Your task to perform on an android device: open device folders in google photos Image 0: 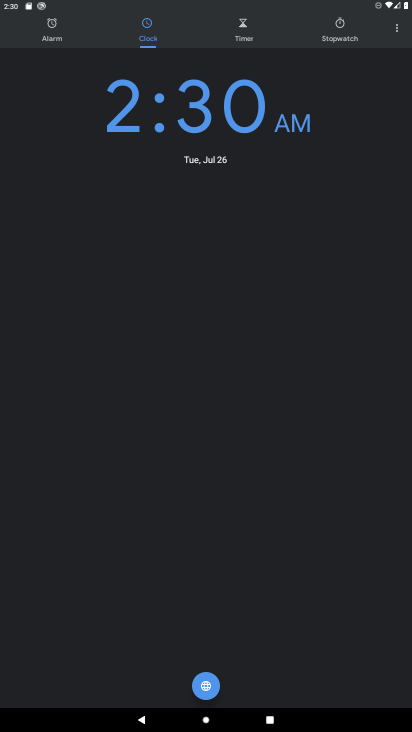
Step 0: press home button
Your task to perform on an android device: open device folders in google photos Image 1: 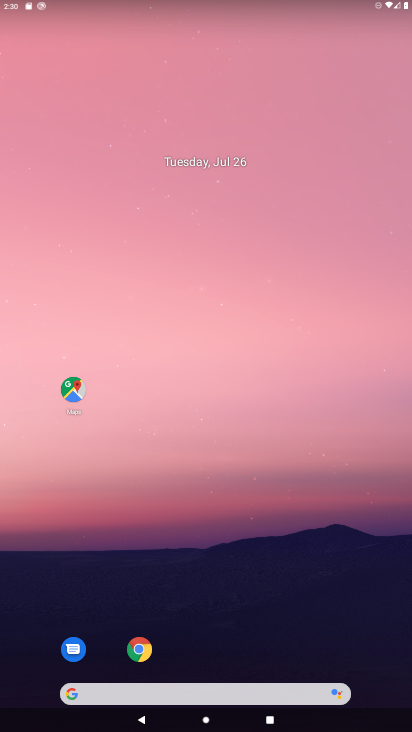
Step 1: drag from (199, 691) to (257, 133)
Your task to perform on an android device: open device folders in google photos Image 2: 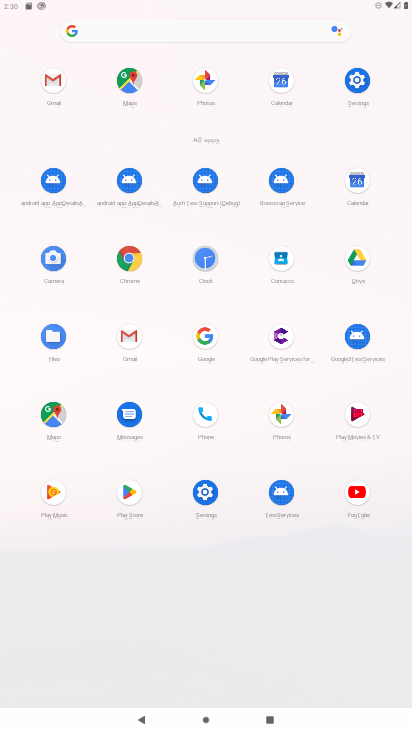
Step 2: click (278, 405)
Your task to perform on an android device: open device folders in google photos Image 3: 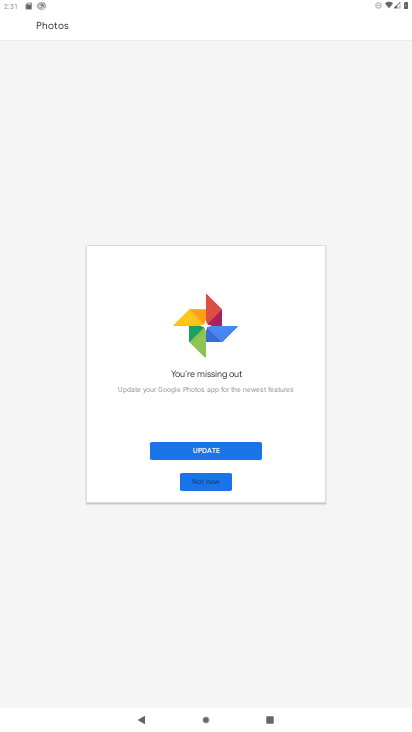
Step 3: click (209, 481)
Your task to perform on an android device: open device folders in google photos Image 4: 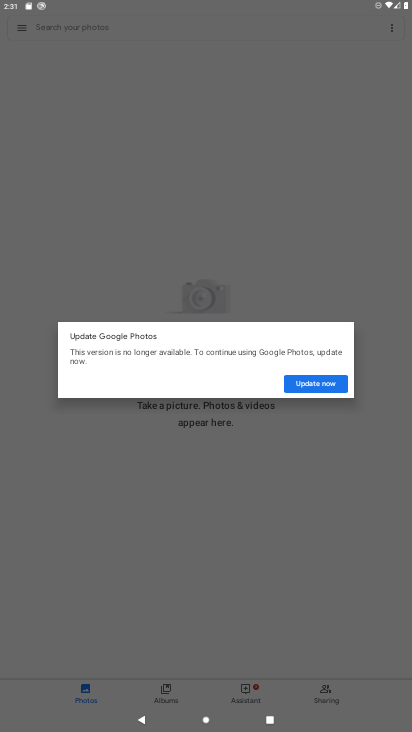
Step 4: click (331, 383)
Your task to perform on an android device: open device folders in google photos Image 5: 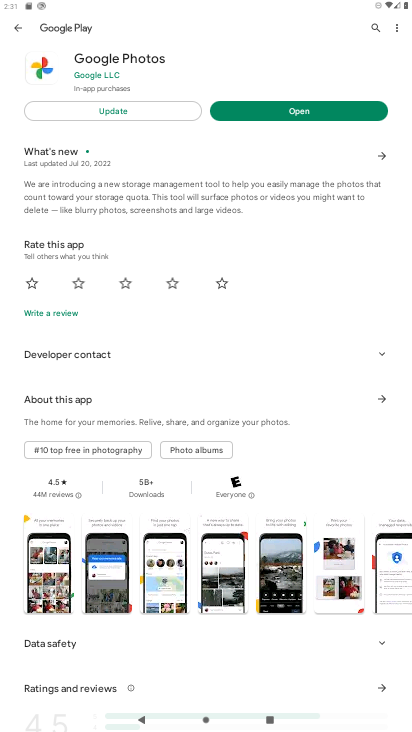
Step 5: click (136, 112)
Your task to perform on an android device: open device folders in google photos Image 6: 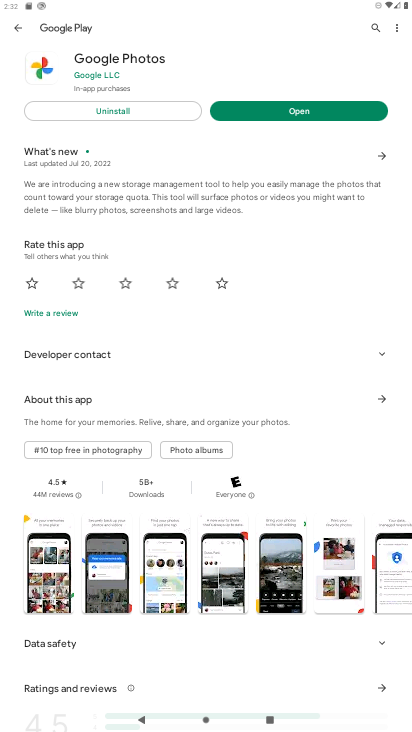
Step 6: click (261, 110)
Your task to perform on an android device: open device folders in google photos Image 7: 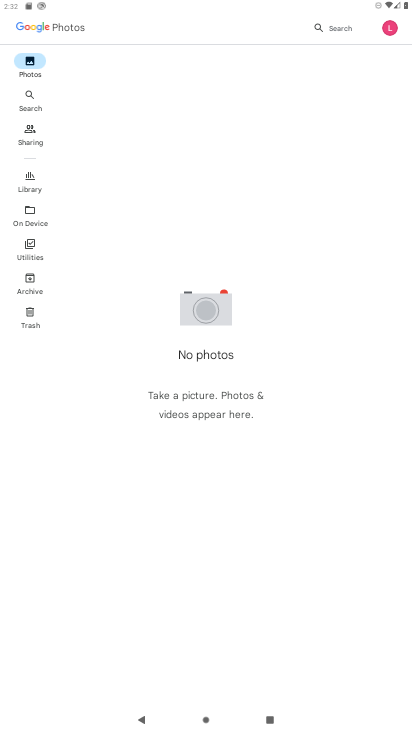
Step 7: task complete